Your task to perform on an android device: Open the stopwatch Image 0: 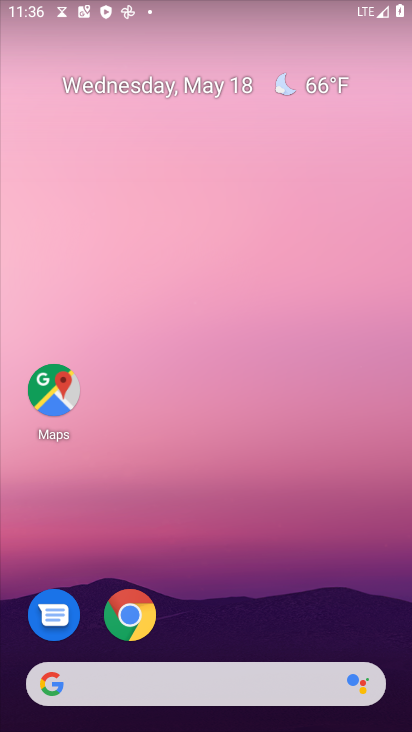
Step 0: drag from (295, 575) to (264, 42)
Your task to perform on an android device: Open the stopwatch Image 1: 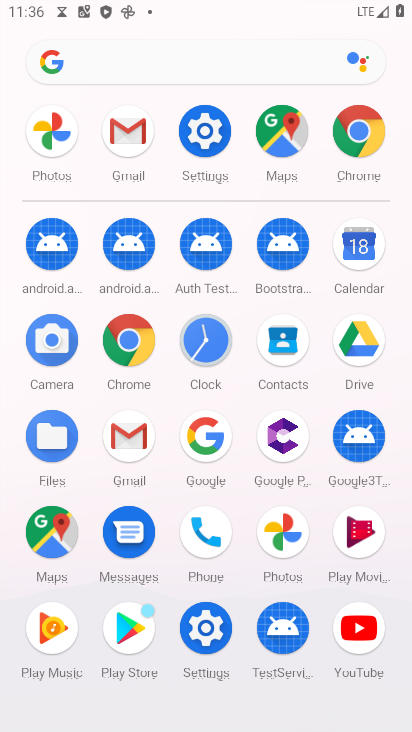
Step 1: drag from (17, 582) to (29, 277)
Your task to perform on an android device: Open the stopwatch Image 2: 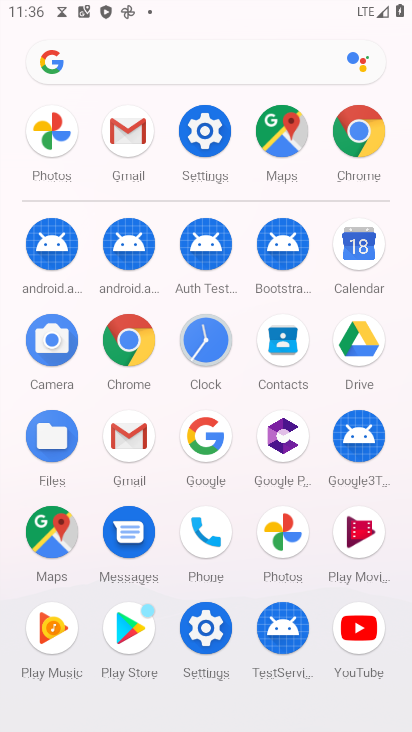
Step 2: click (203, 336)
Your task to perform on an android device: Open the stopwatch Image 3: 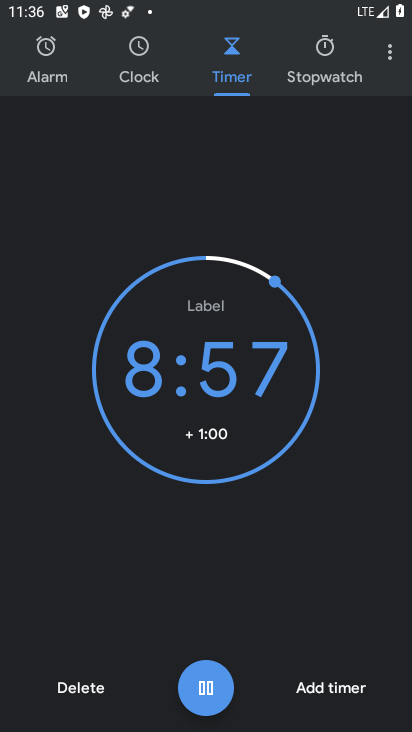
Step 3: click (317, 51)
Your task to perform on an android device: Open the stopwatch Image 4: 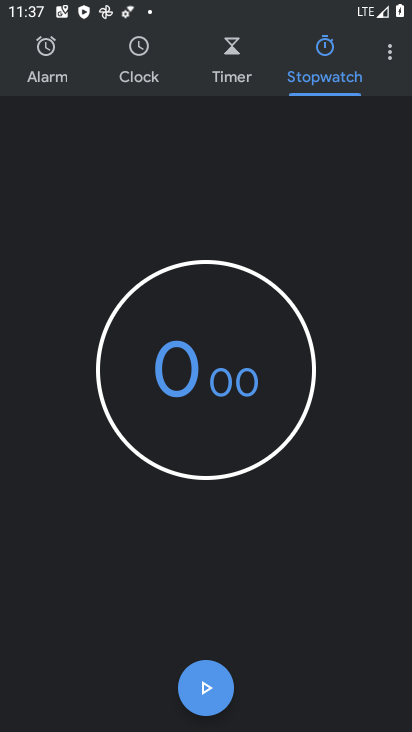
Step 4: task complete